Your task to perform on an android device: When is my next appointment? Image 0: 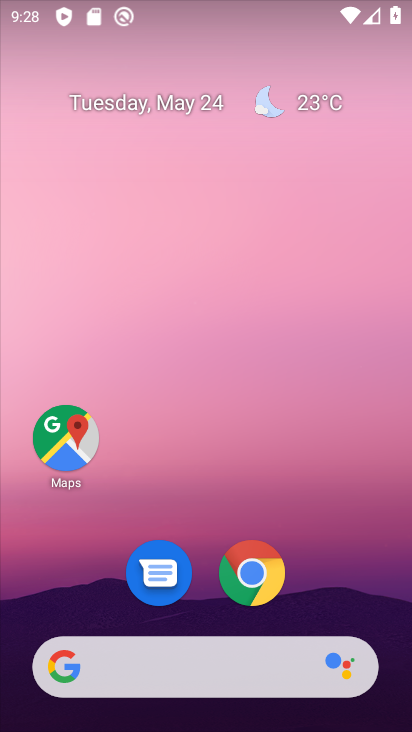
Step 0: drag from (337, 578) to (290, 69)
Your task to perform on an android device: When is my next appointment? Image 1: 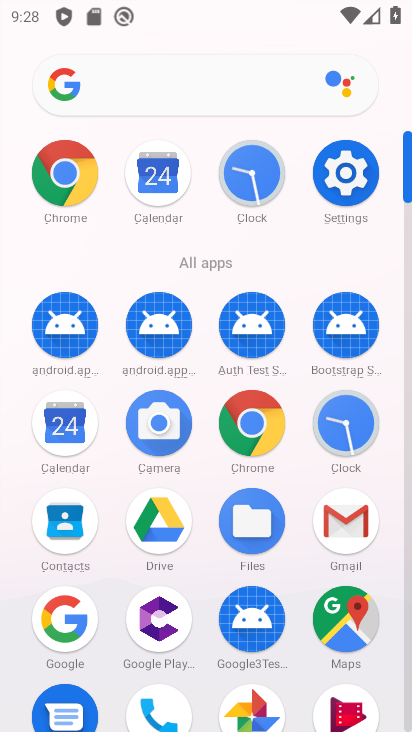
Step 1: click (409, 703)
Your task to perform on an android device: When is my next appointment? Image 2: 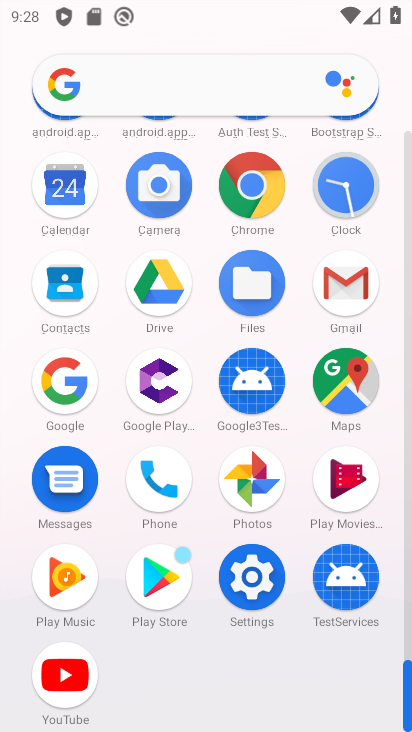
Step 2: click (69, 190)
Your task to perform on an android device: When is my next appointment? Image 3: 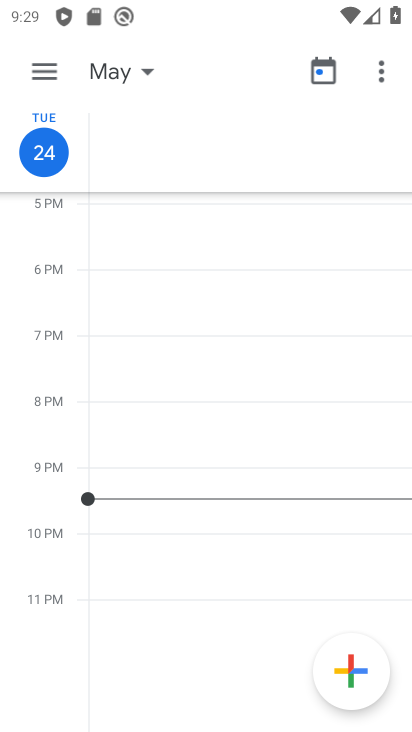
Step 3: click (43, 72)
Your task to perform on an android device: When is my next appointment? Image 4: 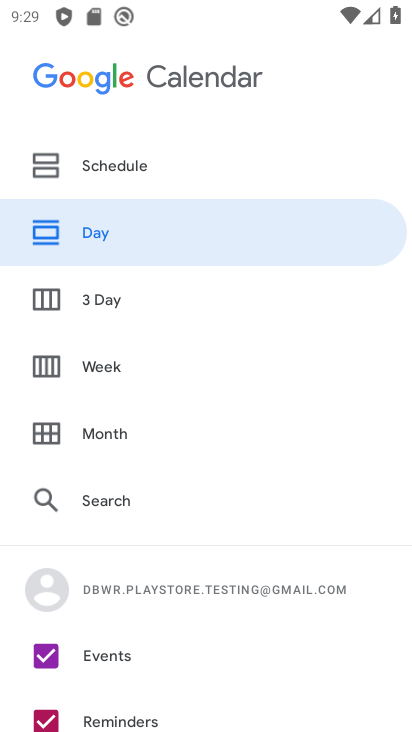
Step 4: click (105, 159)
Your task to perform on an android device: When is my next appointment? Image 5: 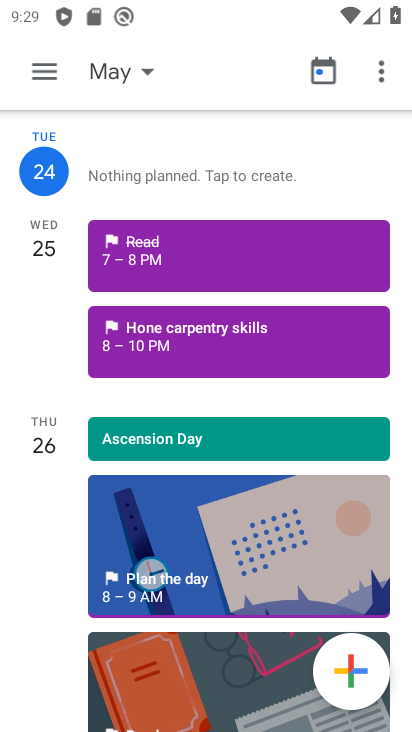
Step 5: task complete